Your task to perform on an android device: Open Youtube and go to the subscriptions tab Image 0: 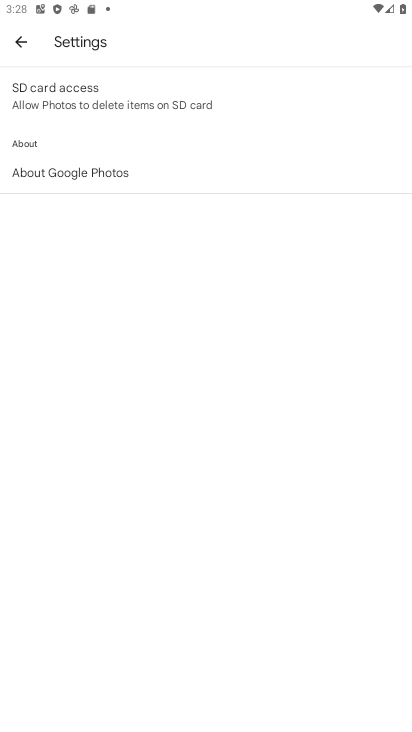
Step 0: press home button
Your task to perform on an android device: Open Youtube and go to the subscriptions tab Image 1: 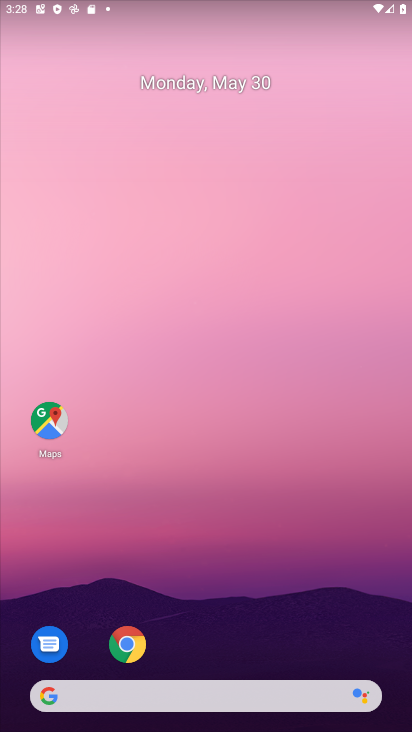
Step 1: drag from (273, 641) to (317, 179)
Your task to perform on an android device: Open Youtube and go to the subscriptions tab Image 2: 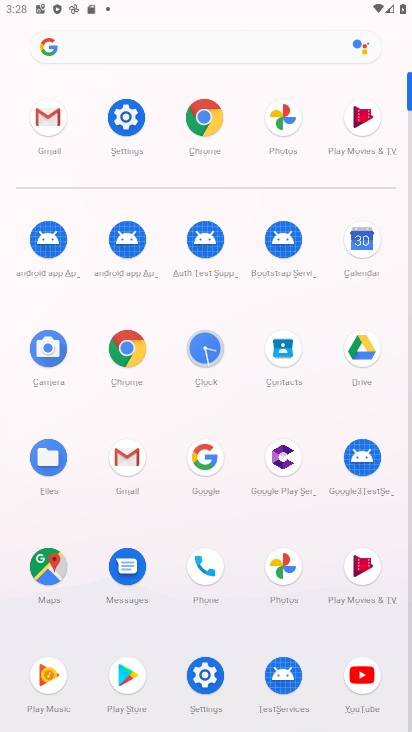
Step 2: click (355, 683)
Your task to perform on an android device: Open Youtube and go to the subscriptions tab Image 3: 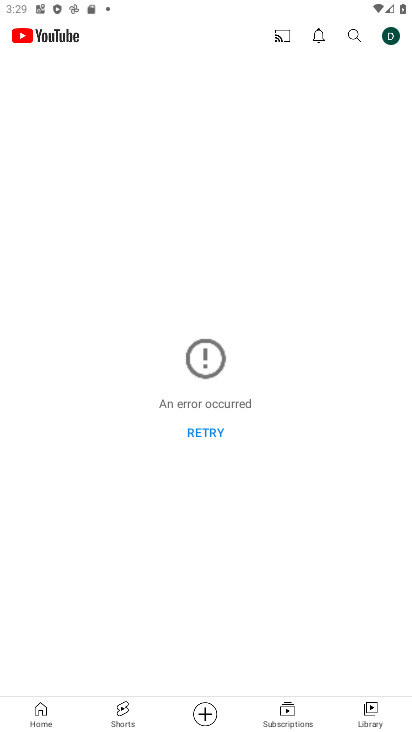
Step 3: click (277, 718)
Your task to perform on an android device: Open Youtube and go to the subscriptions tab Image 4: 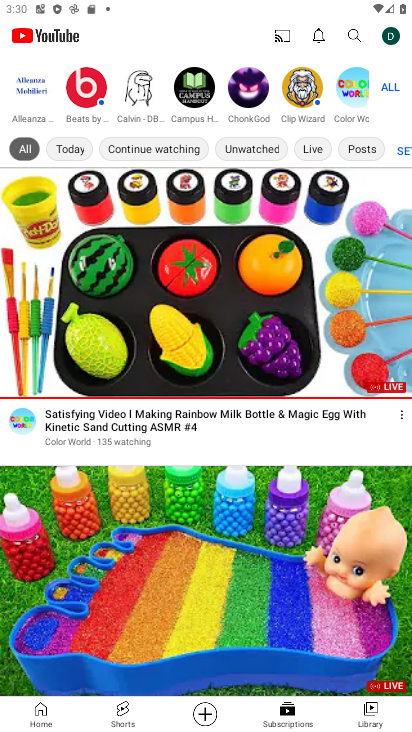
Step 4: task complete